Your task to perform on an android device: Open Youtube and go to "Your channel" Image 0: 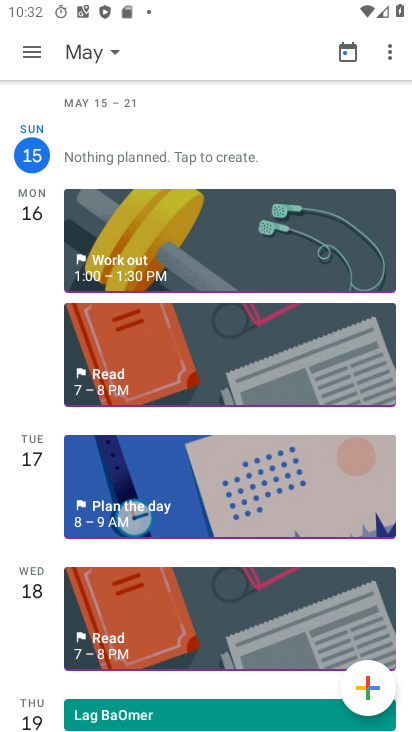
Step 0: press home button
Your task to perform on an android device: Open Youtube and go to "Your channel" Image 1: 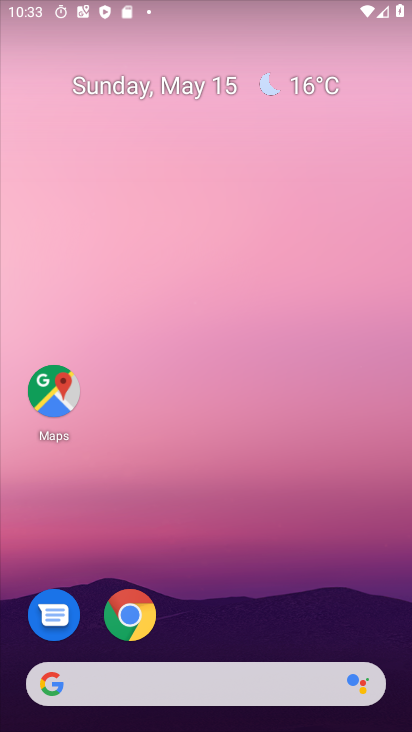
Step 1: drag from (332, 664) to (363, 189)
Your task to perform on an android device: Open Youtube and go to "Your channel" Image 2: 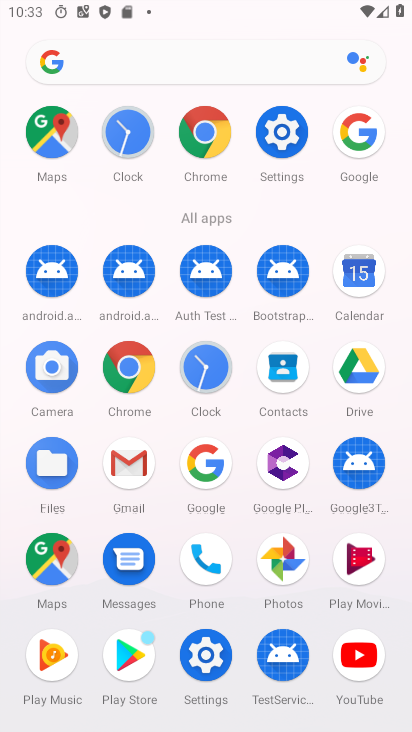
Step 2: click (366, 664)
Your task to perform on an android device: Open Youtube and go to "Your channel" Image 3: 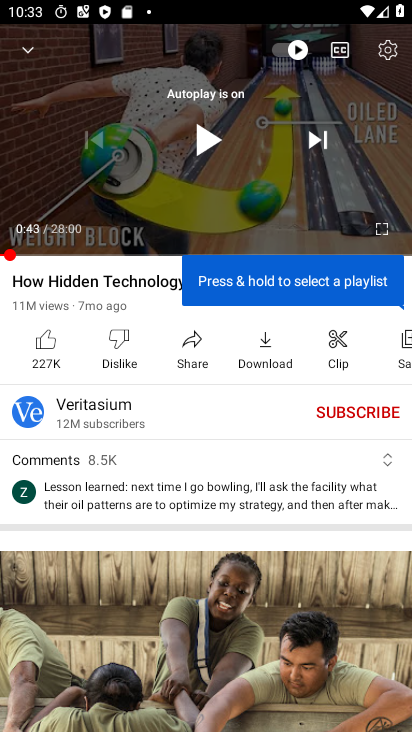
Step 3: drag from (311, 190) to (317, 648)
Your task to perform on an android device: Open Youtube and go to "Your channel" Image 4: 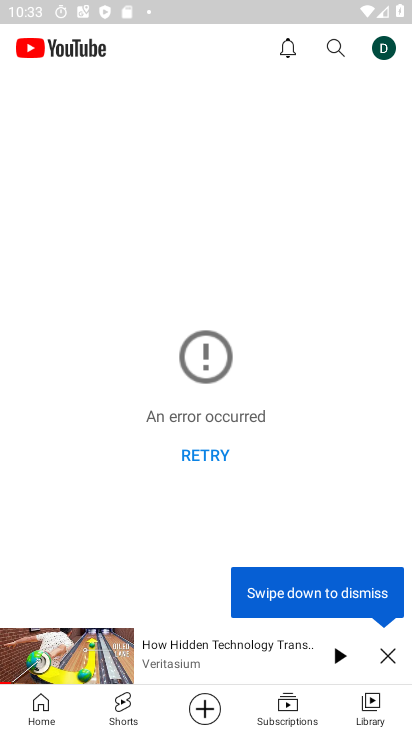
Step 4: click (371, 712)
Your task to perform on an android device: Open Youtube and go to "Your channel" Image 5: 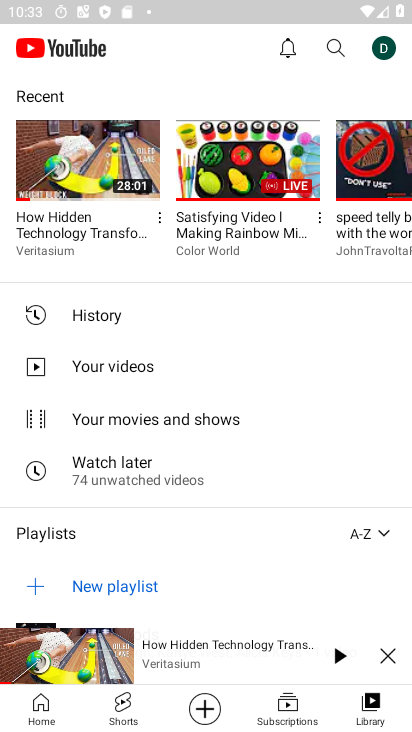
Step 5: drag from (178, 483) to (206, 366)
Your task to perform on an android device: Open Youtube and go to "Your channel" Image 6: 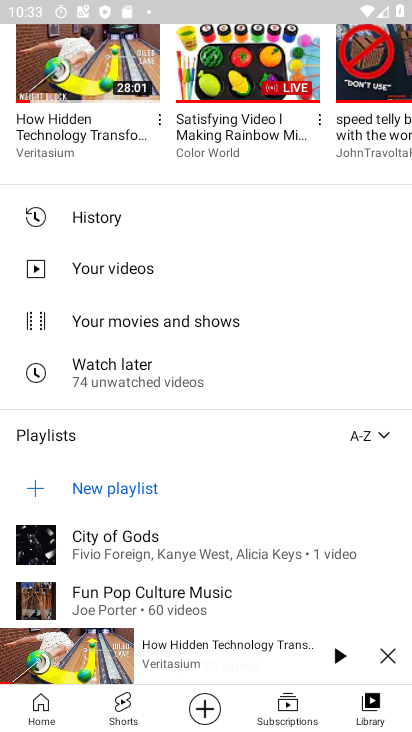
Step 6: drag from (256, 546) to (281, 244)
Your task to perform on an android device: Open Youtube and go to "Your channel" Image 7: 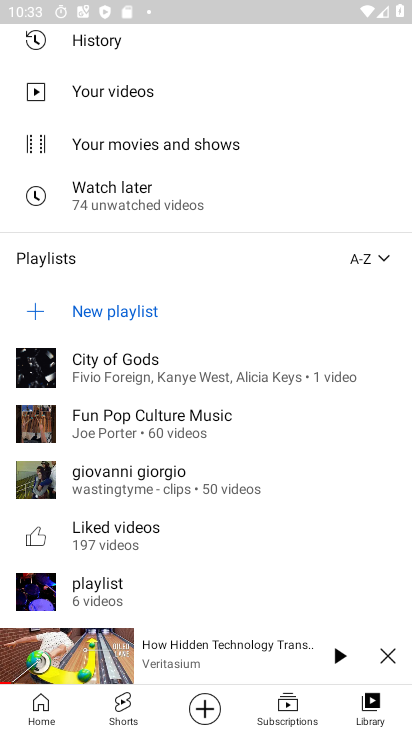
Step 7: click (141, 697)
Your task to perform on an android device: Open Youtube and go to "Your channel" Image 8: 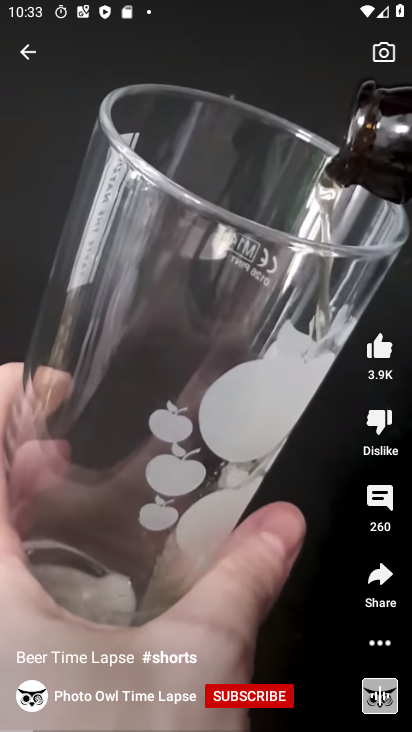
Step 8: task complete